Your task to perform on an android device: Find coffee shops on Maps Image 0: 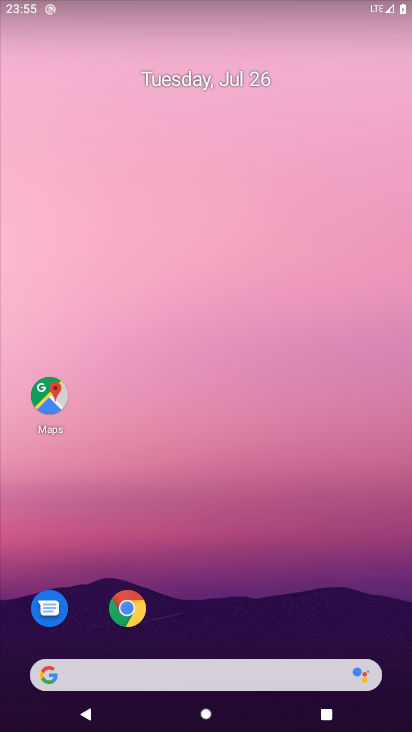
Step 0: click (35, 389)
Your task to perform on an android device: Find coffee shops on Maps Image 1: 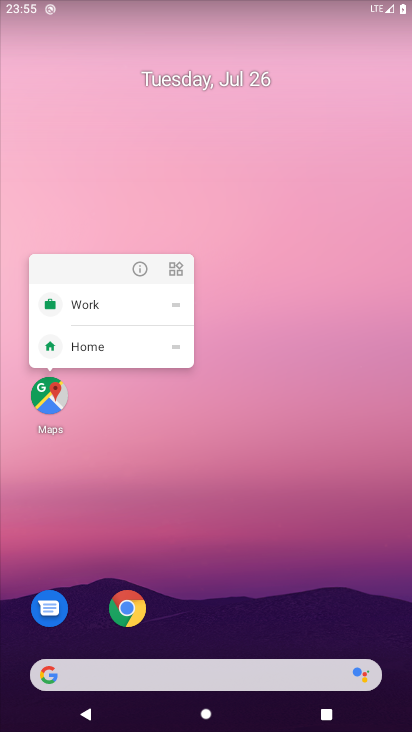
Step 1: click (35, 389)
Your task to perform on an android device: Find coffee shops on Maps Image 2: 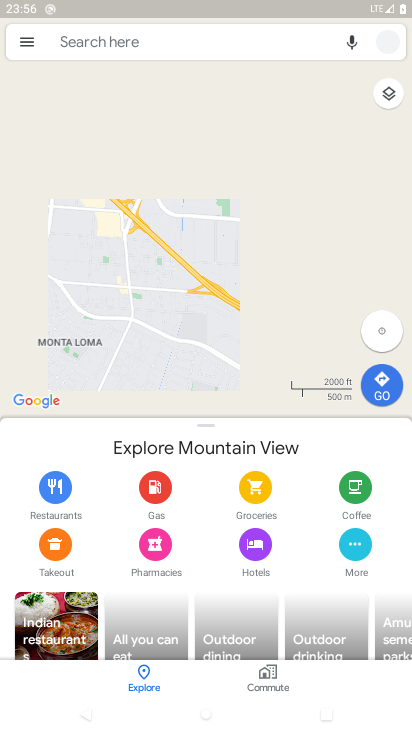
Step 2: click (144, 41)
Your task to perform on an android device: Find coffee shops on Maps Image 3: 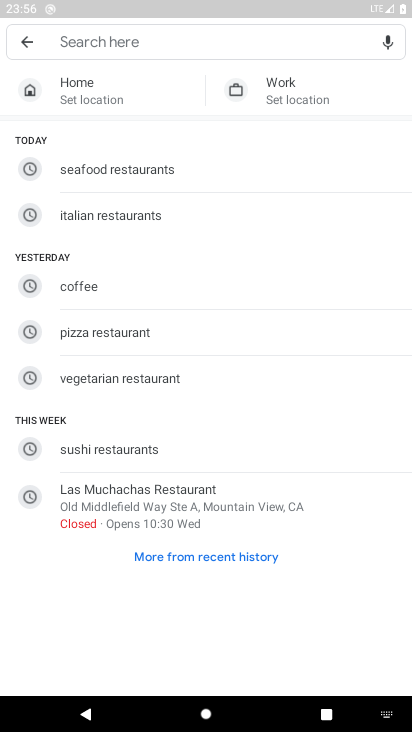
Step 3: type " coffee shops"
Your task to perform on an android device: Find coffee shops on Maps Image 4: 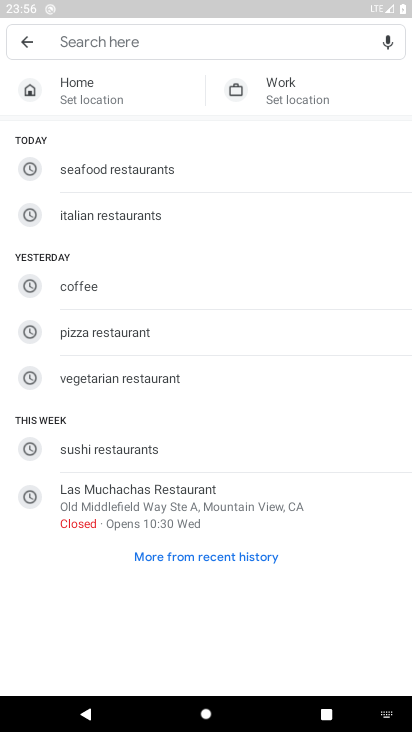
Step 4: click (90, 44)
Your task to perform on an android device: Find coffee shops on Maps Image 5: 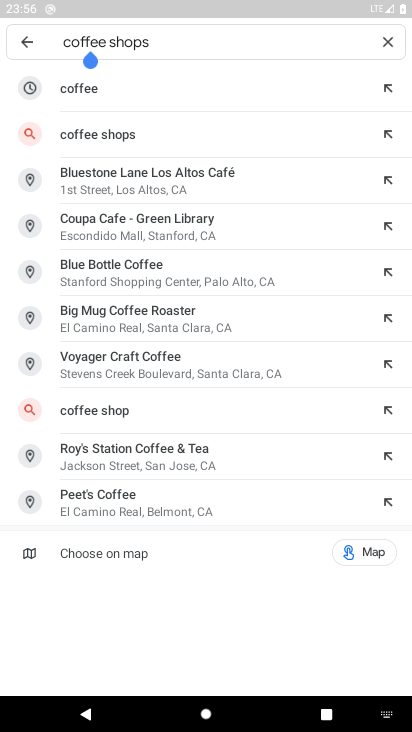
Step 5: press enter
Your task to perform on an android device: Find coffee shops on Maps Image 6: 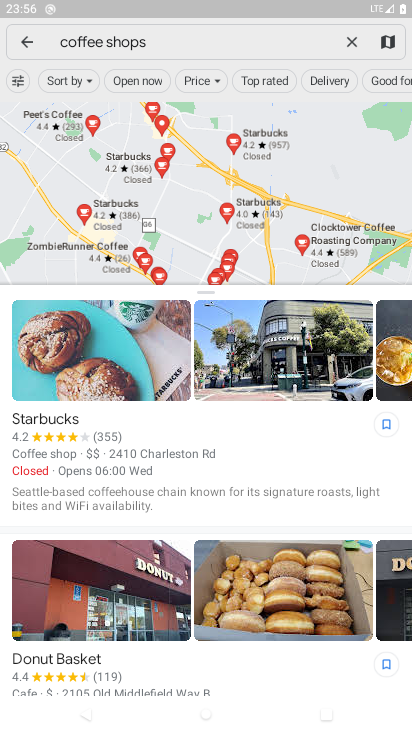
Step 6: task complete